Your task to perform on an android device: open app "Booking.com: Hotels and more" (install if not already installed), go to login, and select forgot password Image 0: 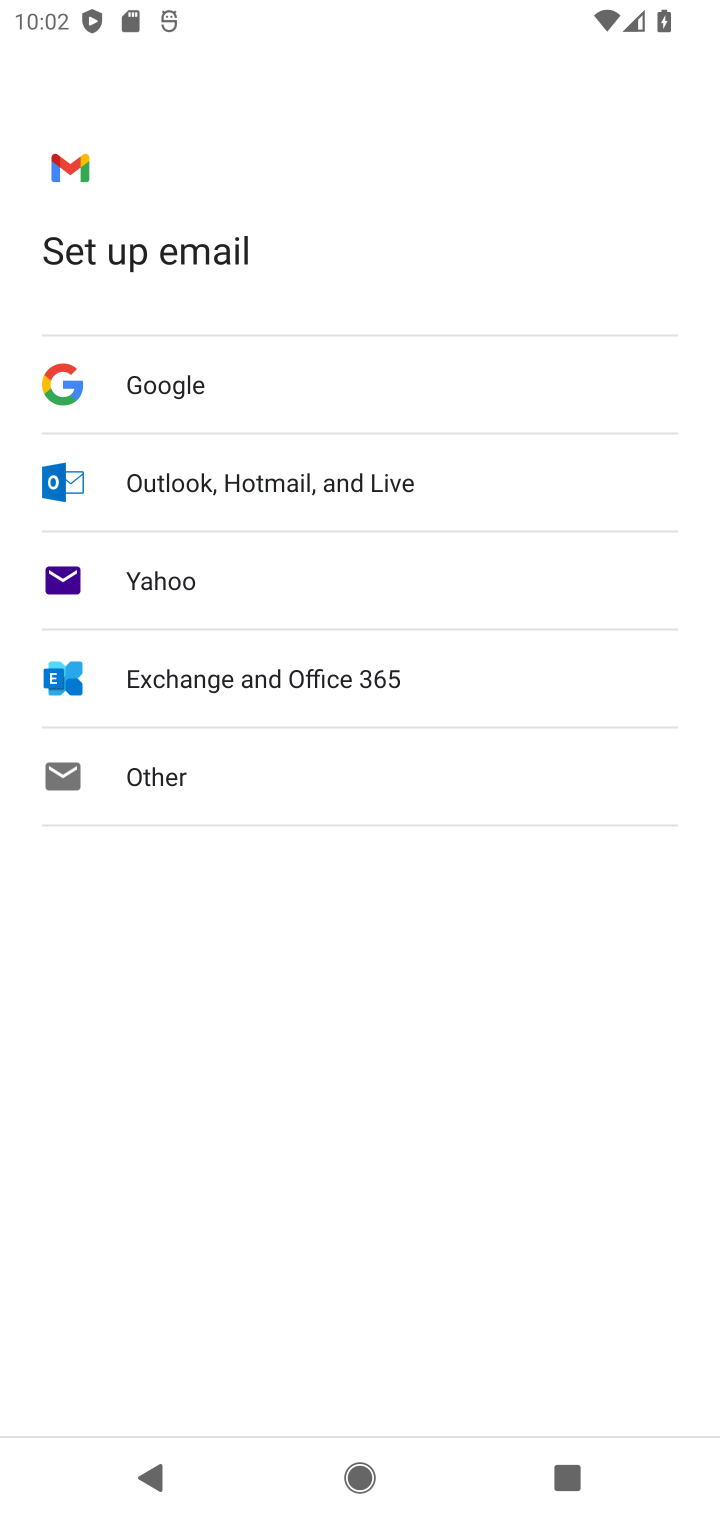
Step 0: press home button
Your task to perform on an android device: open app "Booking.com: Hotels and more" (install if not already installed), go to login, and select forgot password Image 1: 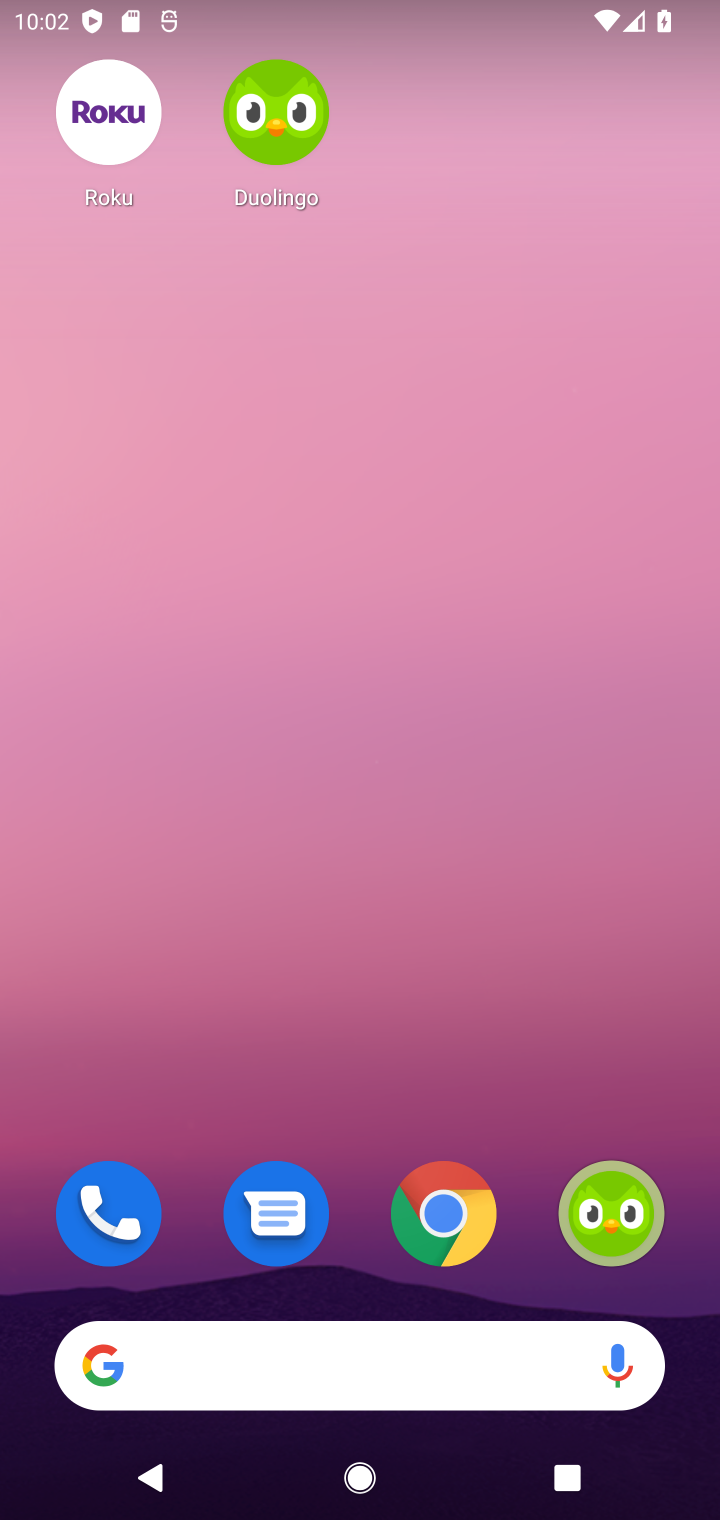
Step 1: drag from (334, 989) to (431, 37)
Your task to perform on an android device: open app "Booking.com: Hotels and more" (install if not already installed), go to login, and select forgot password Image 2: 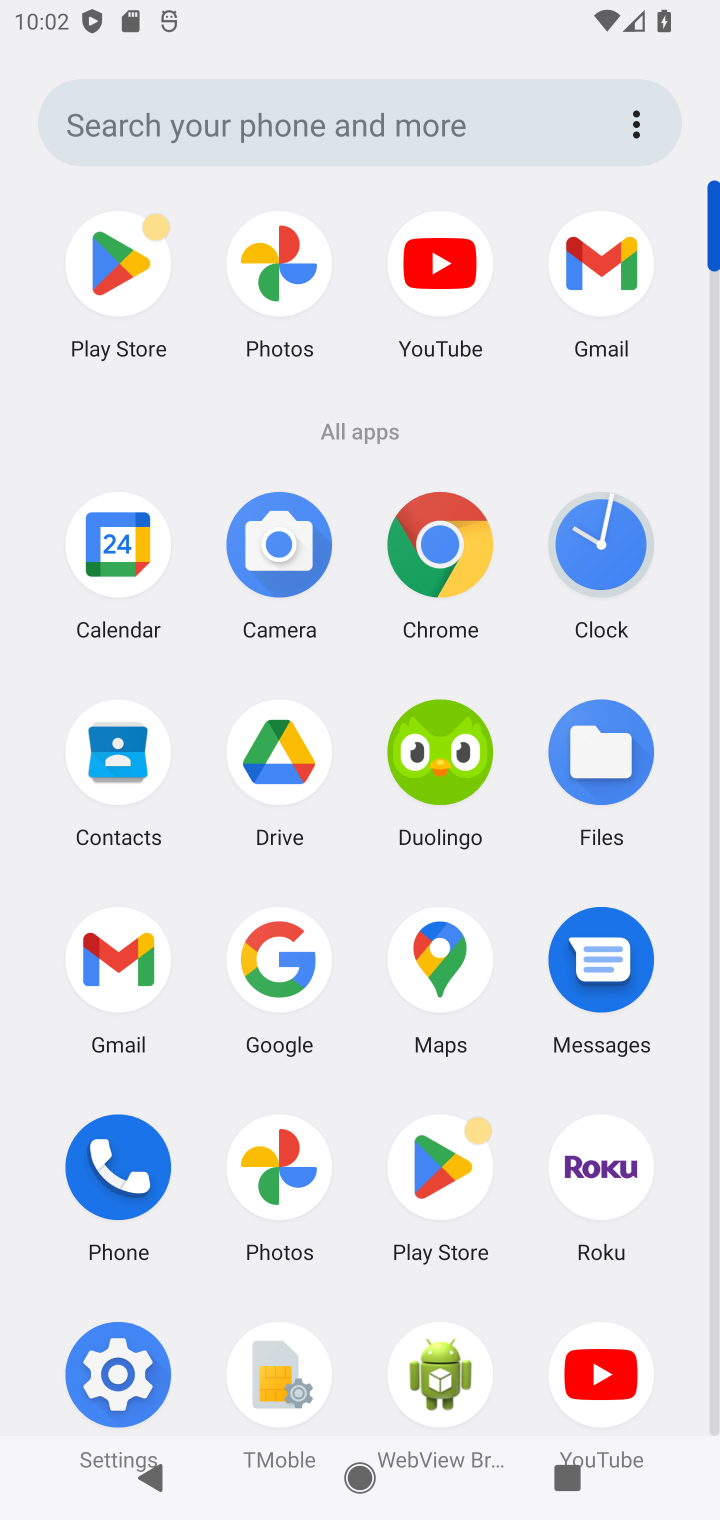
Step 2: click (140, 316)
Your task to perform on an android device: open app "Booking.com: Hotels and more" (install if not already installed), go to login, and select forgot password Image 3: 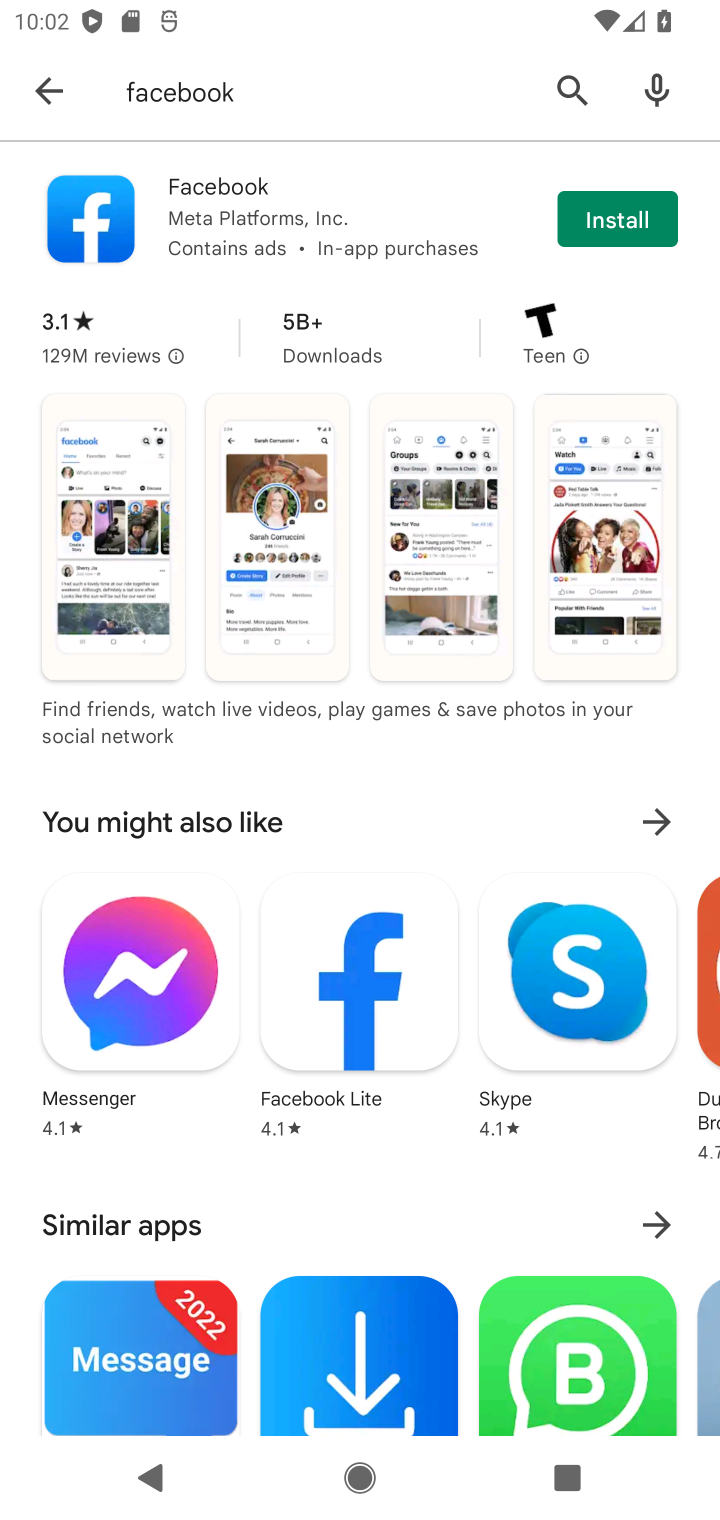
Step 3: click (244, 81)
Your task to perform on an android device: open app "Booking.com: Hotels and more" (install if not already installed), go to login, and select forgot password Image 4: 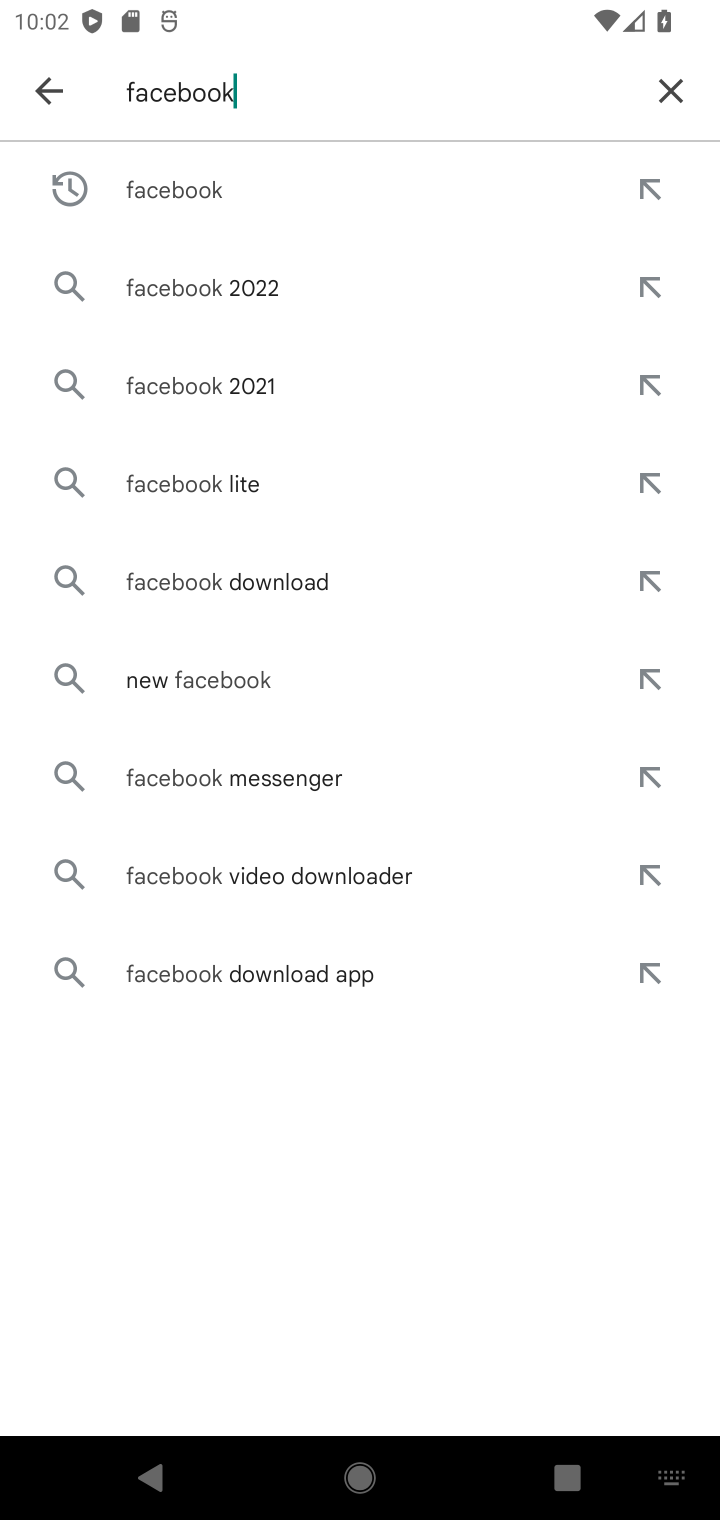
Step 4: click (665, 88)
Your task to perform on an android device: open app "Booking.com: Hotels and more" (install if not already installed), go to login, and select forgot password Image 5: 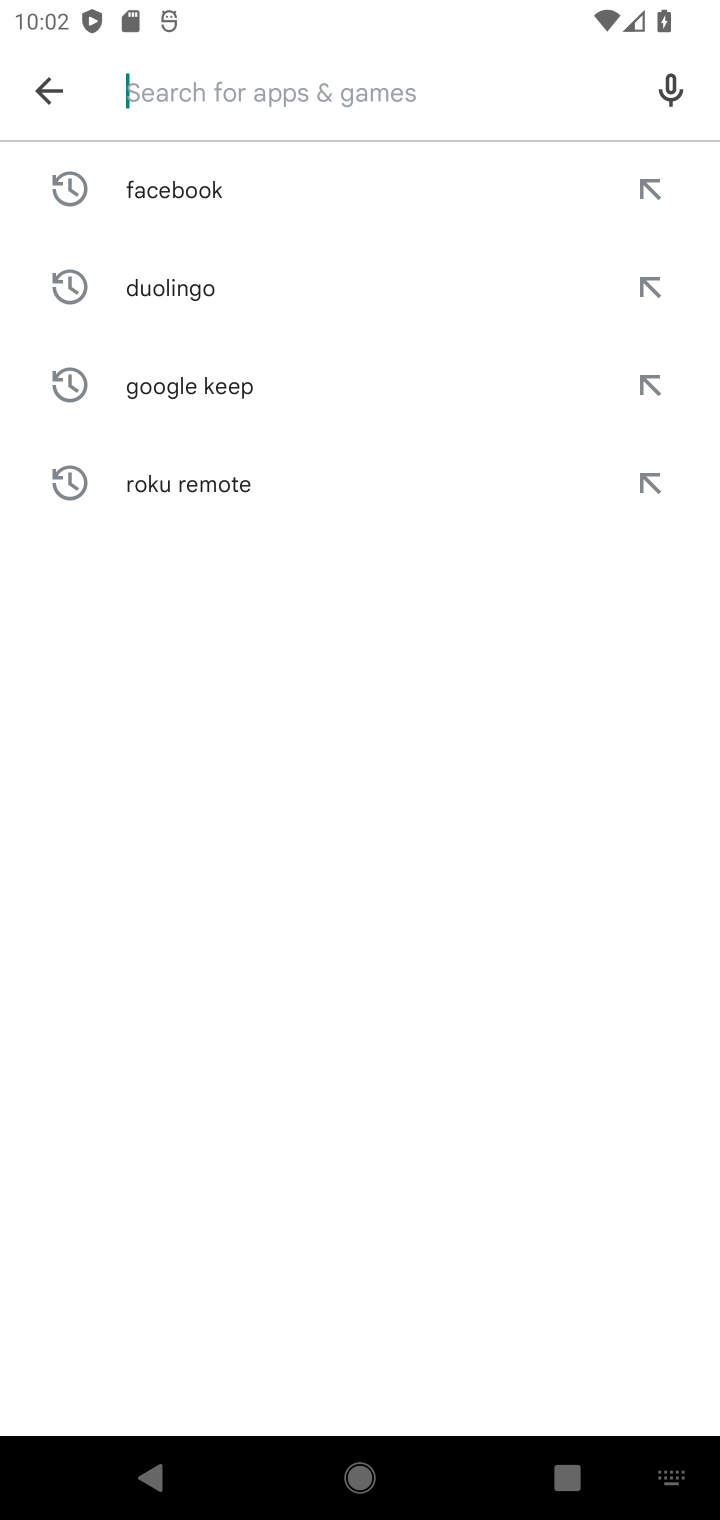
Step 5: type "booking.com"
Your task to perform on an android device: open app "Booking.com: Hotels and more" (install if not already installed), go to login, and select forgot password Image 6: 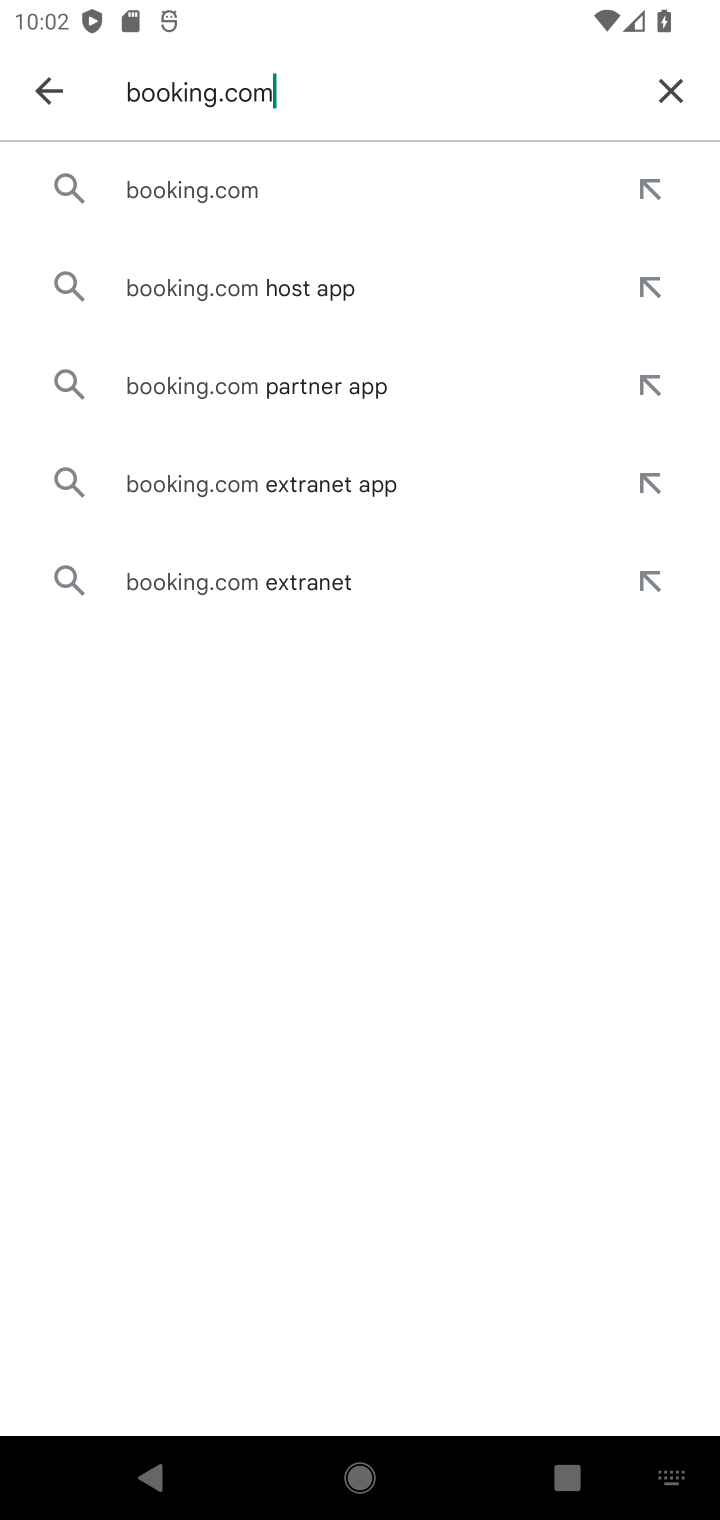
Step 6: click (246, 196)
Your task to perform on an android device: open app "Booking.com: Hotels and more" (install if not already installed), go to login, and select forgot password Image 7: 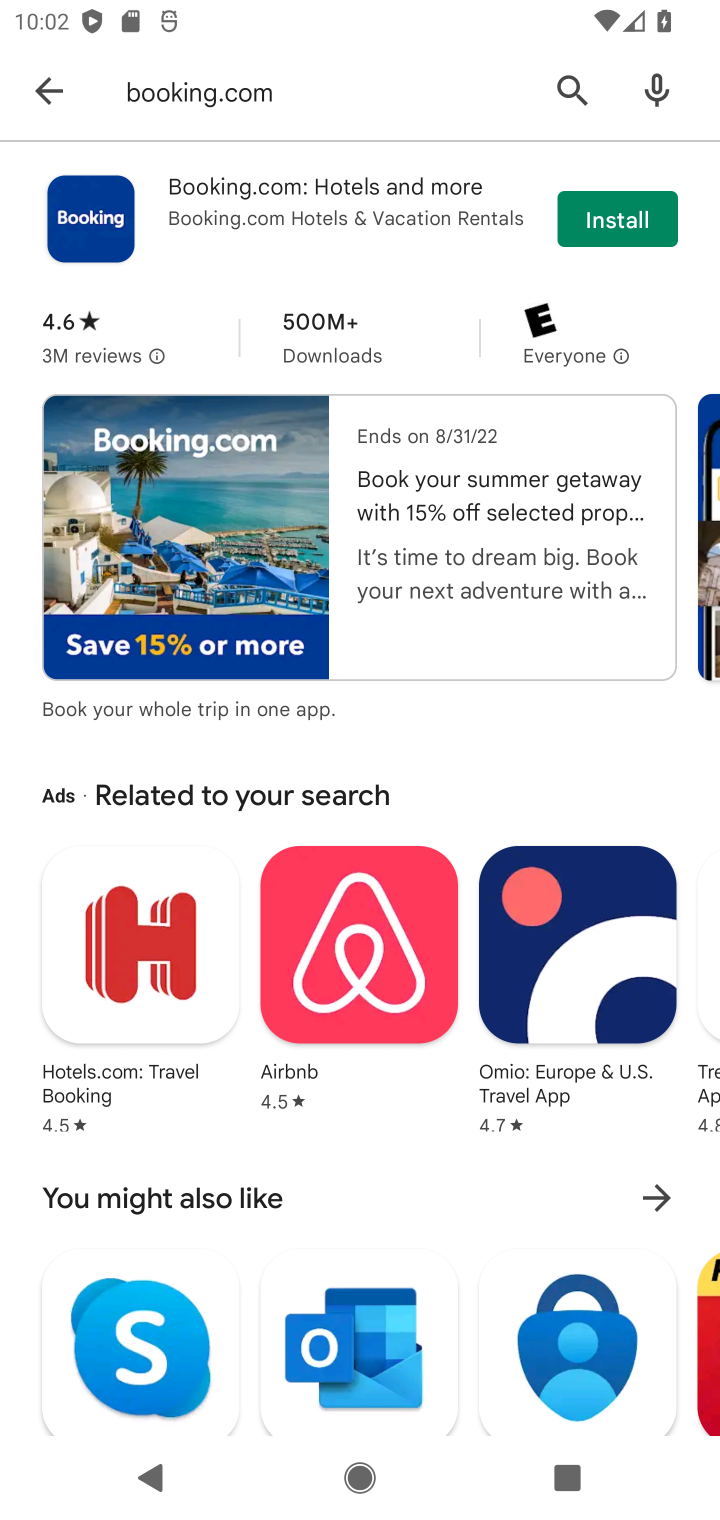
Step 7: click (643, 216)
Your task to perform on an android device: open app "Booking.com: Hotels and more" (install if not already installed), go to login, and select forgot password Image 8: 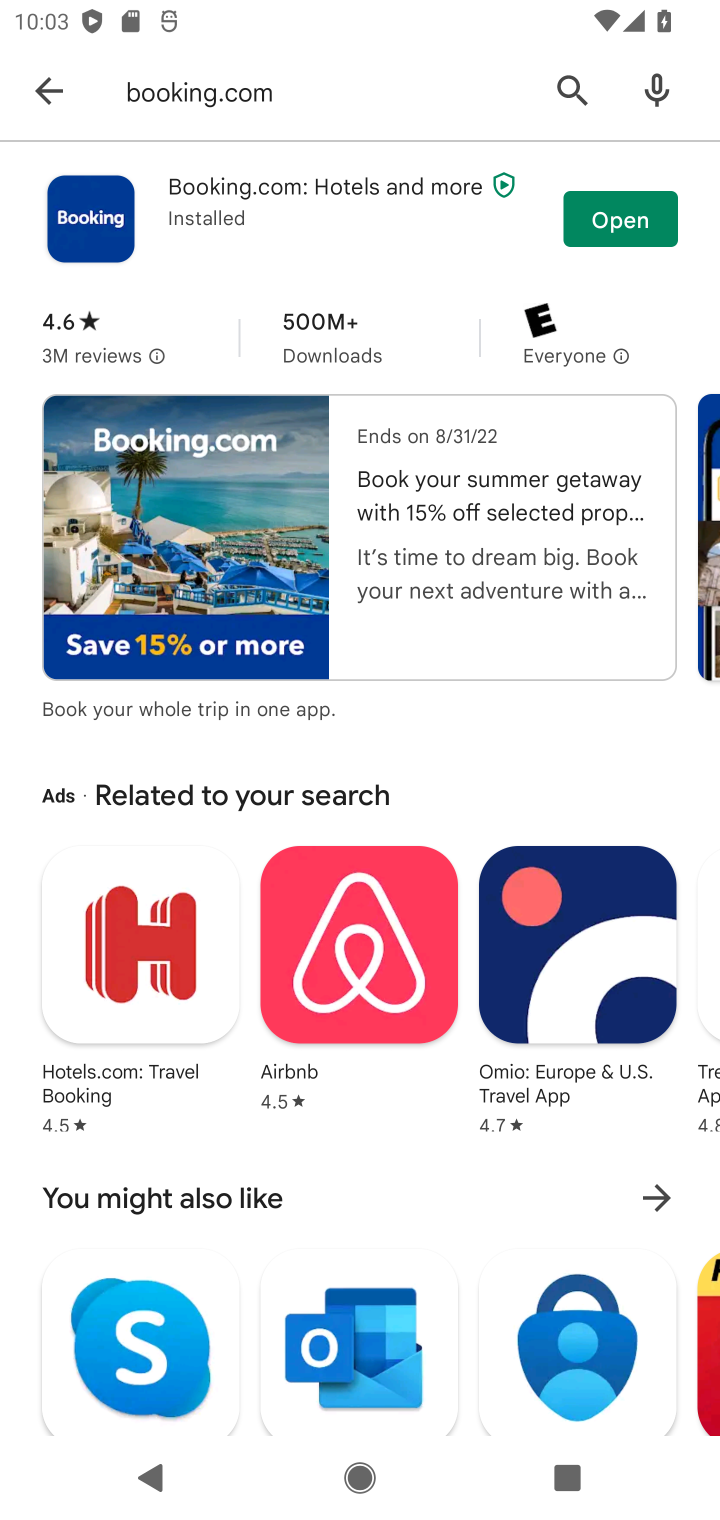
Step 8: click (635, 211)
Your task to perform on an android device: open app "Booking.com: Hotels and more" (install if not already installed), go to login, and select forgot password Image 9: 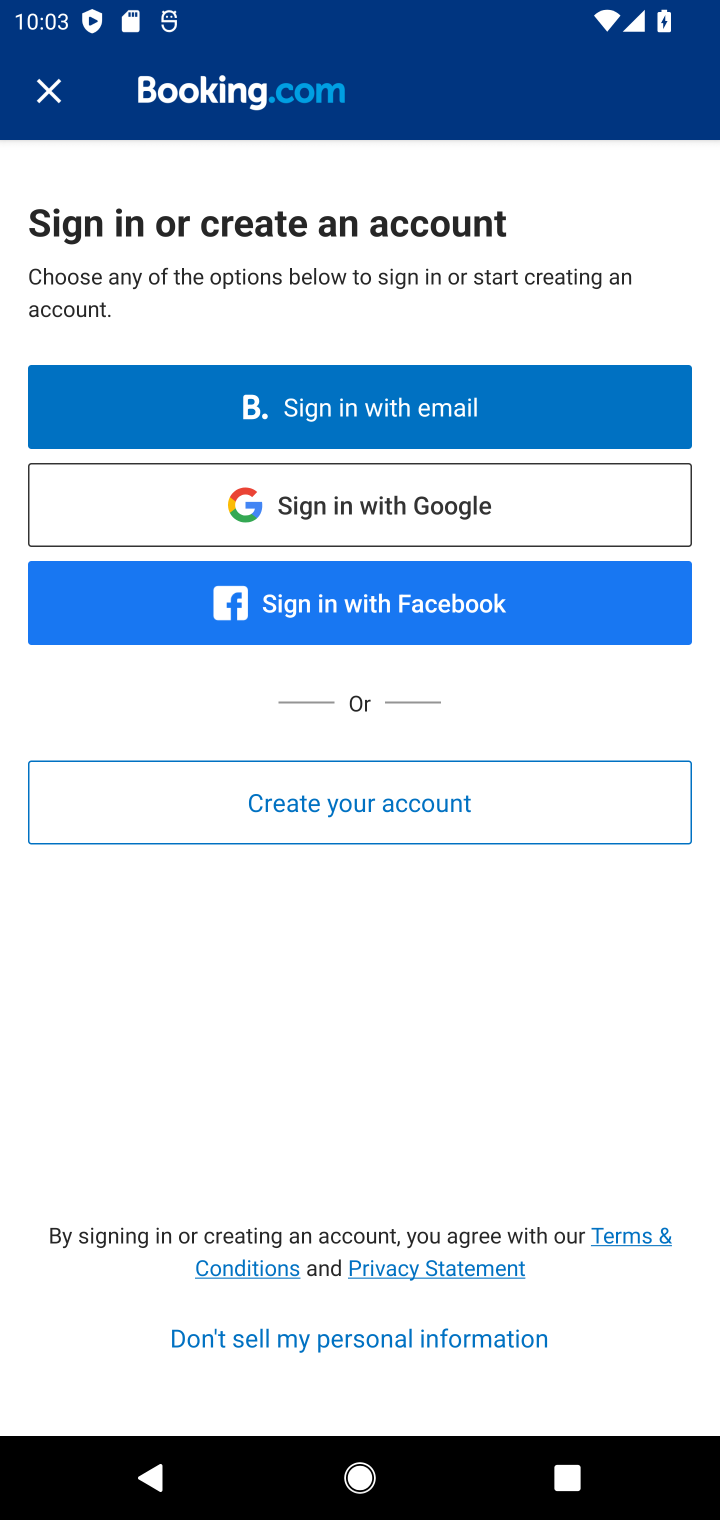
Step 9: click (465, 388)
Your task to perform on an android device: open app "Booking.com: Hotels and more" (install if not already installed), go to login, and select forgot password Image 10: 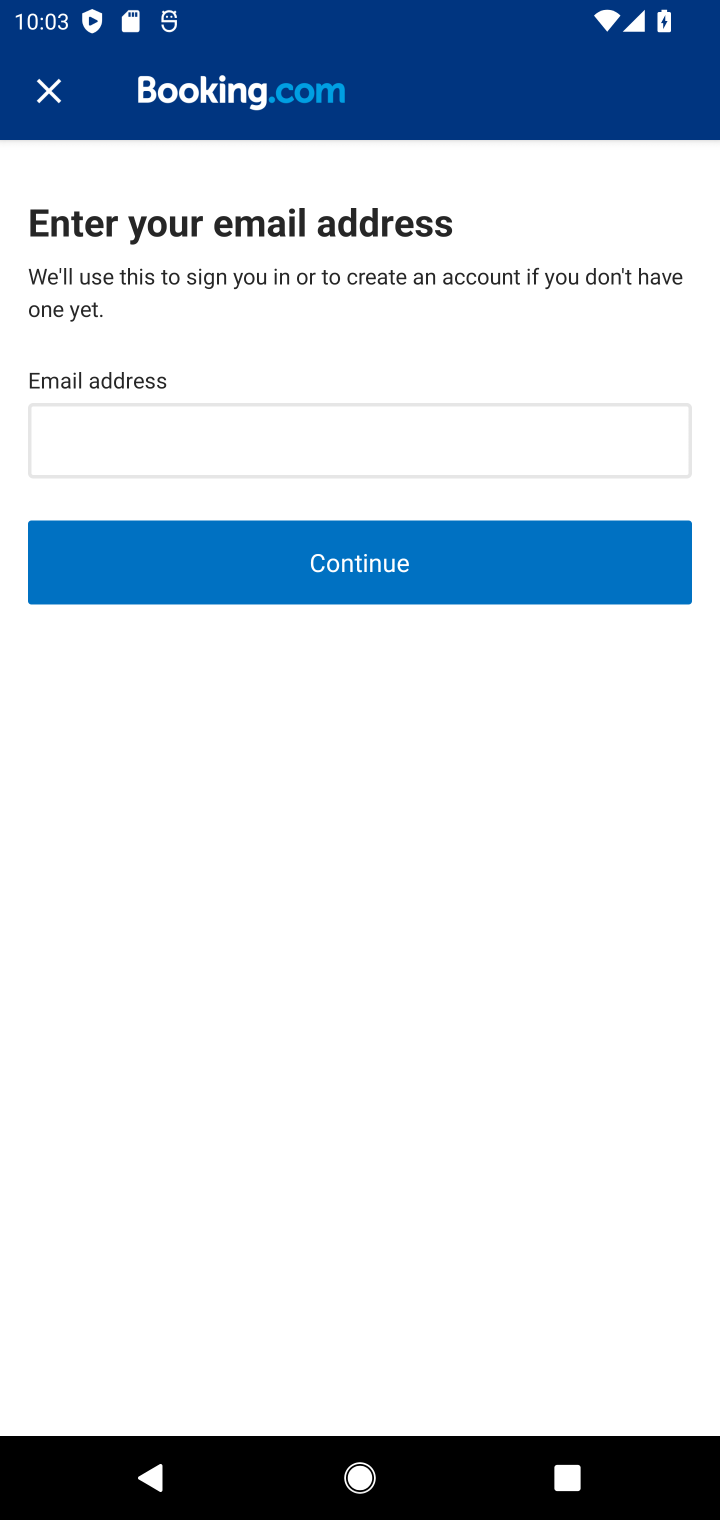
Step 10: click (127, 433)
Your task to perform on an android device: open app "Booking.com: Hotels and more" (install if not already installed), go to login, and select forgot password Image 11: 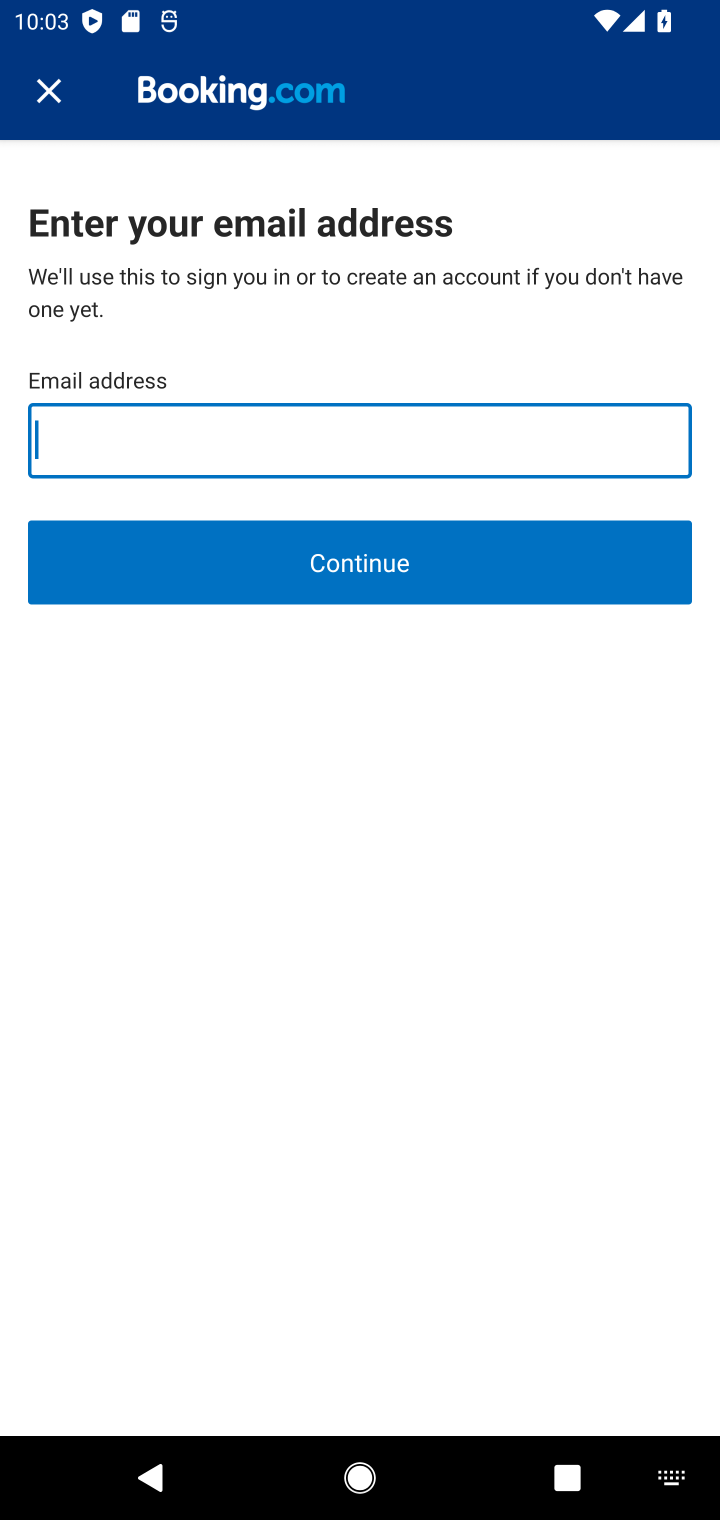
Step 11: task complete